Your task to perform on an android device: Install the Yahoo app Image 0: 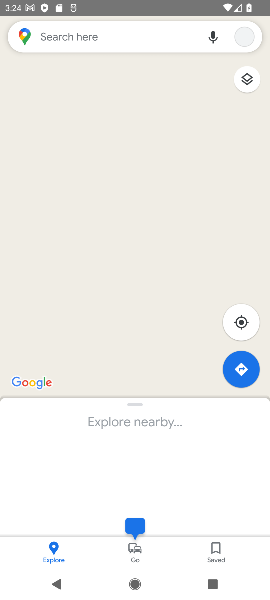
Step 0: press home button
Your task to perform on an android device: Install the Yahoo app Image 1: 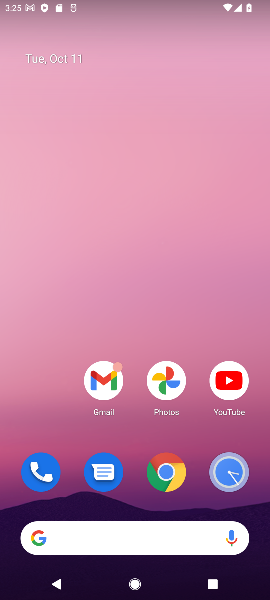
Step 1: drag from (121, 445) to (112, 203)
Your task to perform on an android device: Install the Yahoo app Image 2: 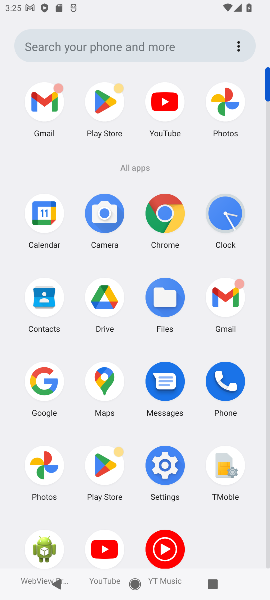
Step 2: click (121, 468)
Your task to perform on an android device: Install the Yahoo app Image 3: 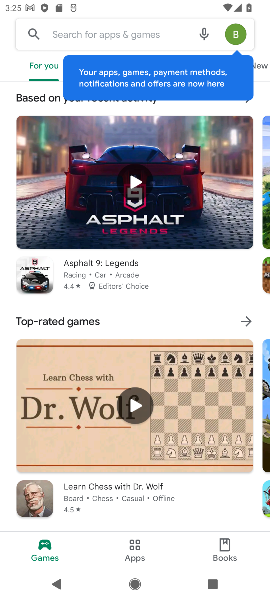
Step 3: click (78, 31)
Your task to perform on an android device: Install the Yahoo app Image 4: 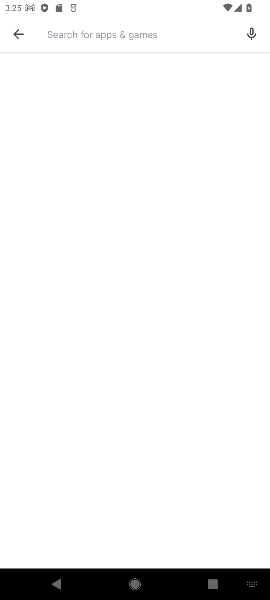
Step 4: type "yahoo.com"
Your task to perform on an android device: Install the Yahoo app Image 5: 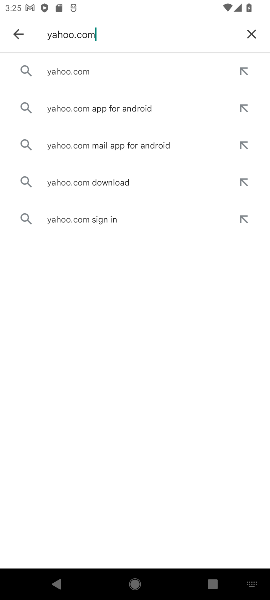
Step 5: click (68, 72)
Your task to perform on an android device: Install the Yahoo app Image 6: 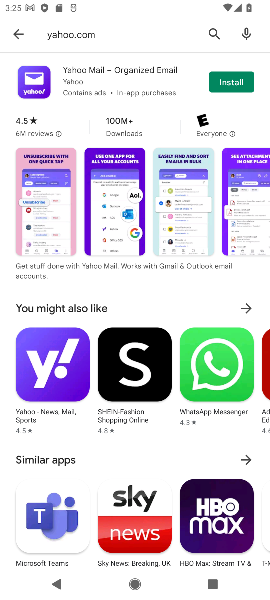
Step 6: click (211, 74)
Your task to perform on an android device: Install the Yahoo app Image 7: 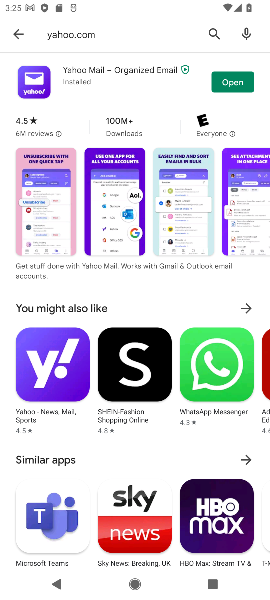
Step 7: task complete